Your task to perform on an android device: change your default location settings in chrome Image 0: 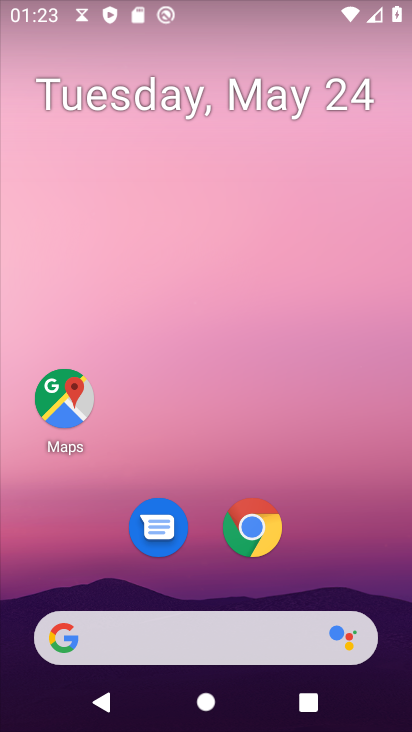
Step 0: press home button
Your task to perform on an android device: change your default location settings in chrome Image 1: 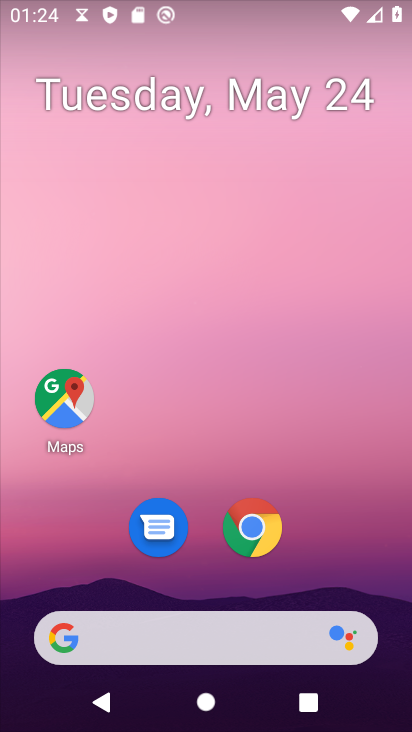
Step 1: click (248, 537)
Your task to perform on an android device: change your default location settings in chrome Image 2: 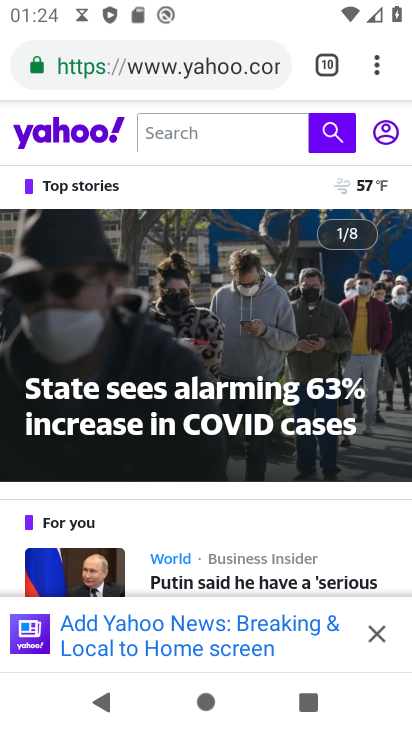
Step 2: drag from (374, 68) to (237, 564)
Your task to perform on an android device: change your default location settings in chrome Image 3: 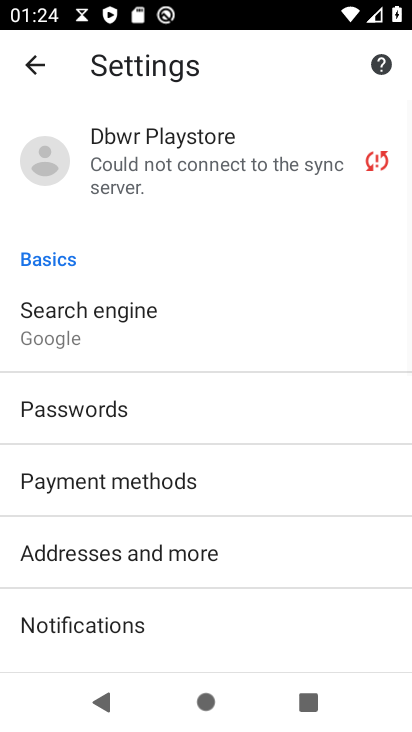
Step 3: drag from (189, 605) to (285, 105)
Your task to perform on an android device: change your default location settings in chrome Image 4: 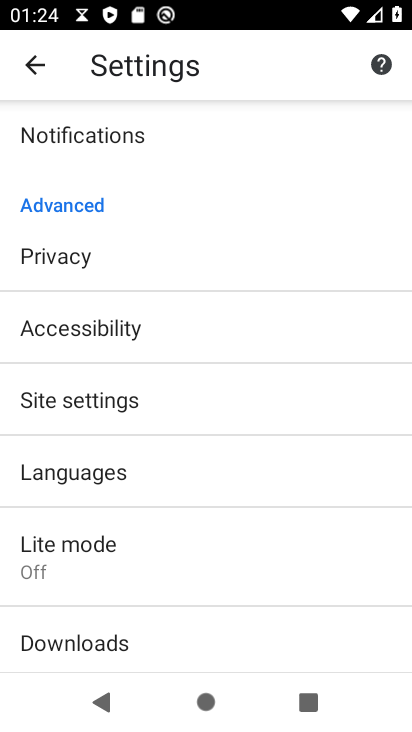
Step 4: click (123, 400)
Your task to perform on an android device: change your default location settings in chrome Image 5: 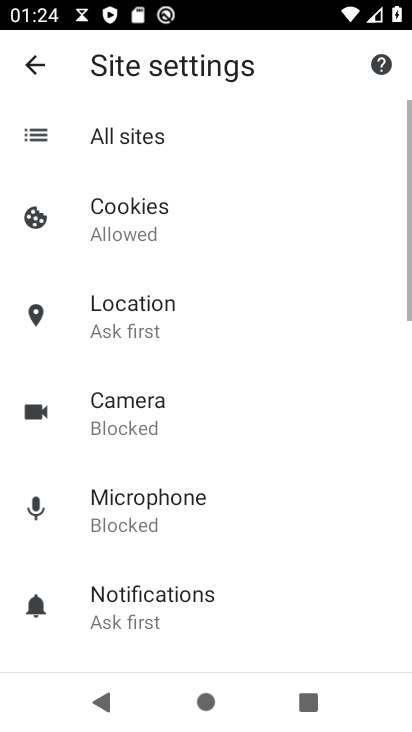
Step 5: click (116, 316)
Your task to perform on an android device: change your default location settings in chrome Image 6: 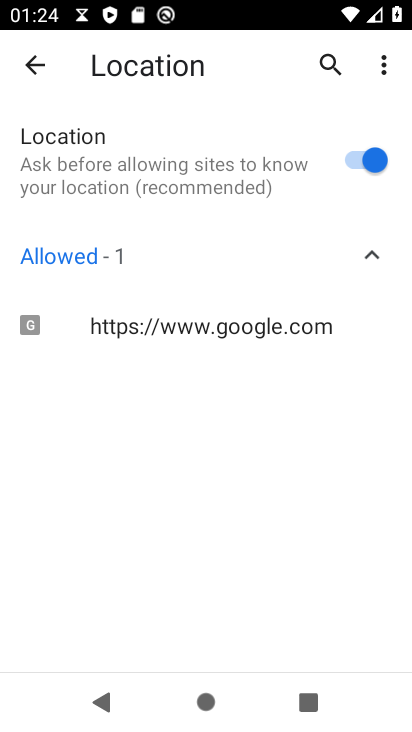
Step 6: click (359, 163)
Your task to perform on an android device: change your default location settings in chrome Image 7: 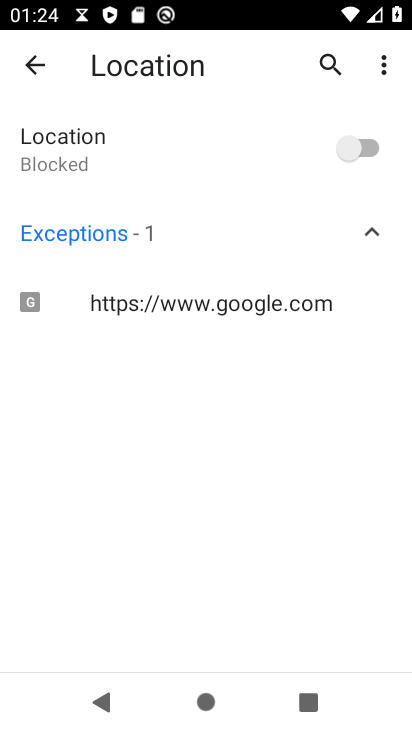
Step 7: task complete